Your task to perform on an android device: Go to Reddit.com Image 0: 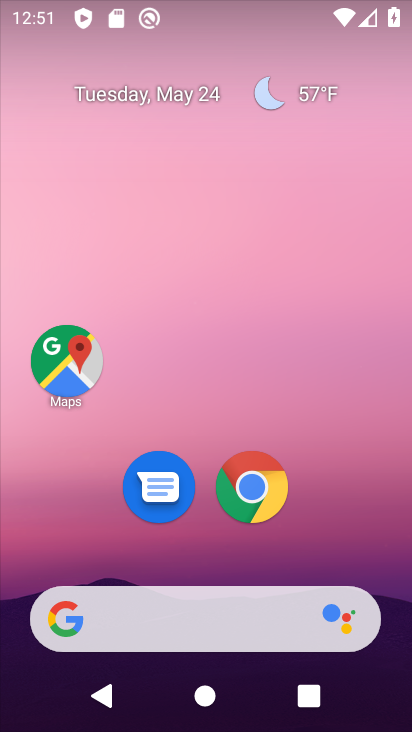
Step 0: click (259, 486)
Your task to perform on an android device: Go to Reddit.com Image 1: 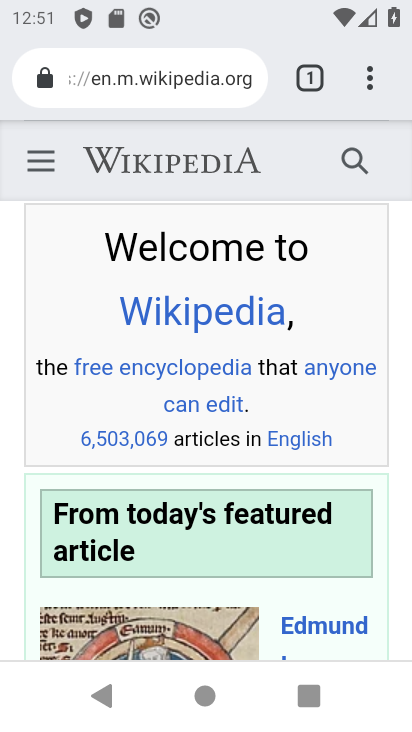
Step 1: click (371, 85)
Your task to perform on an android device: Go to Reddit.com Image 2: 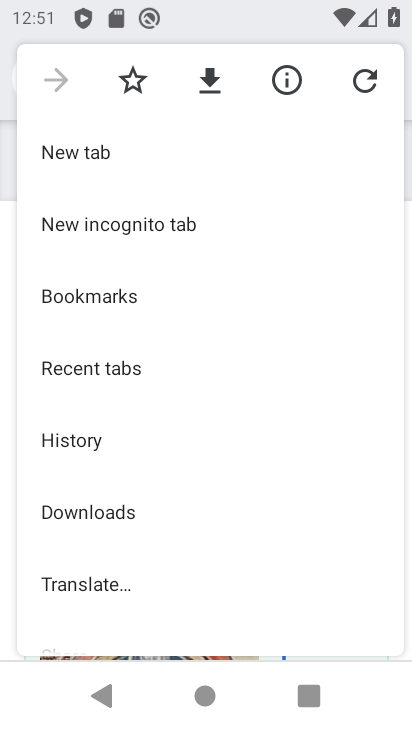
Step 2: click (80, 156)
Your task to perform on an android device: Go to Reddit.com Image 3: 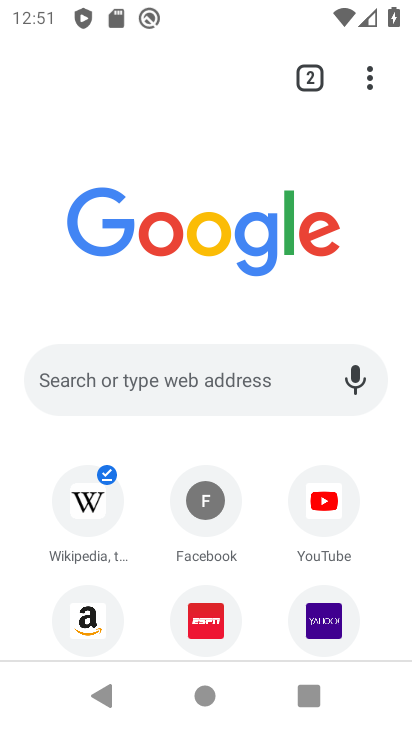
Step 3: click (213, 382)
Your task to perform on an android device: Go to Reddit.com Image 4: 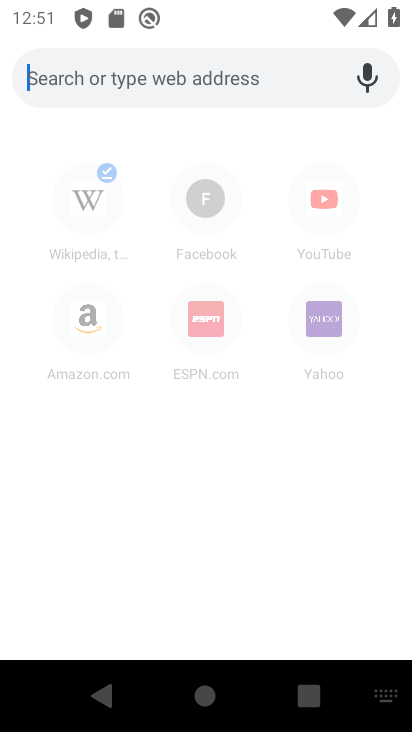
Step 4: type "Reddit.com"
Your task to perform on an android device: Go to Reddit.com Image 5: 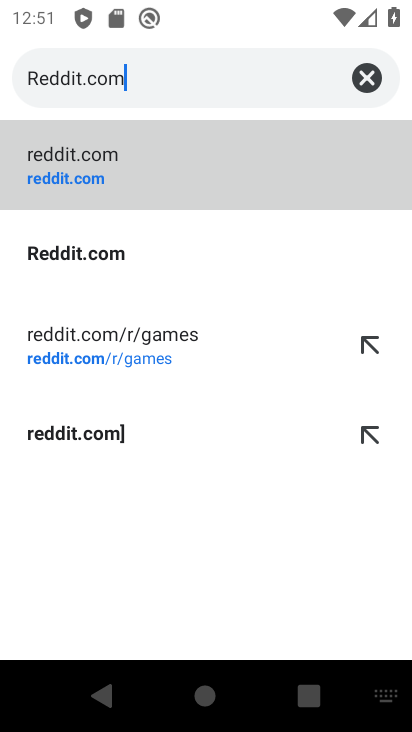
Step 5: click (75, 169)
Your task to perform on an android device: Go to Reddit.com Image 6: 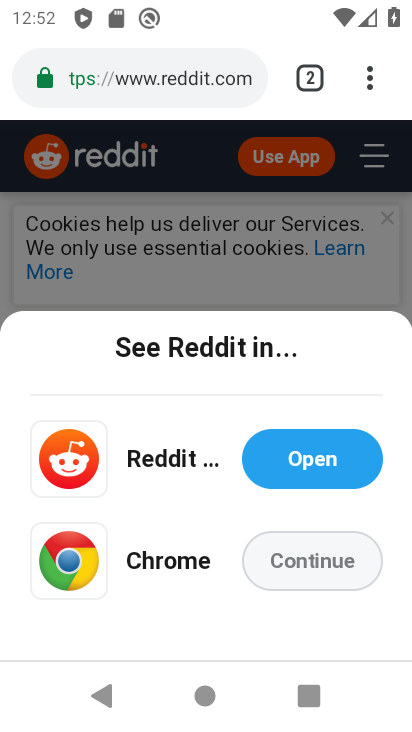
Step 6: task complete